Your task to perform on an android device: Set the phone to "Do not disturb". Image 0: 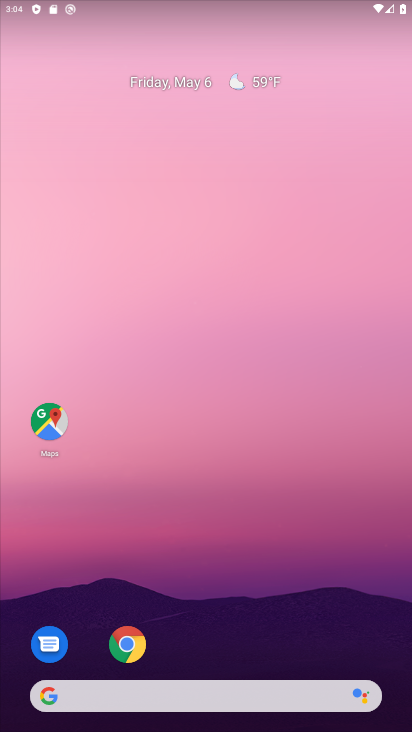
Step 0: drag from (212, 727) to (190, 180)
Your task to perform on an android device: Set the phone to "Do not disturb". Image 1: 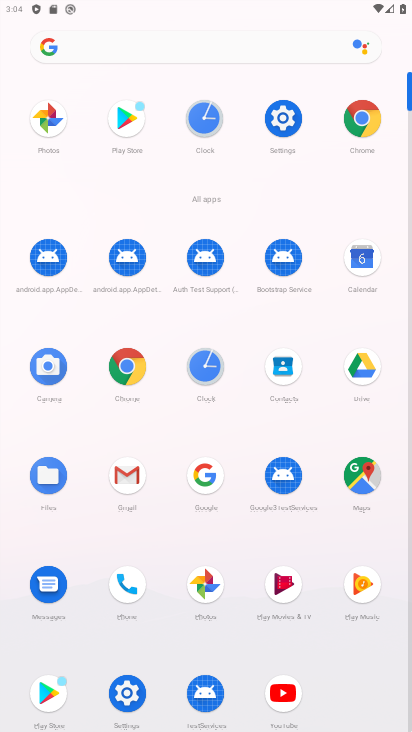
Step 1: click (127, 687)
Your task to perform on an android device: Set the phone to "Do not disturb". Image 2: 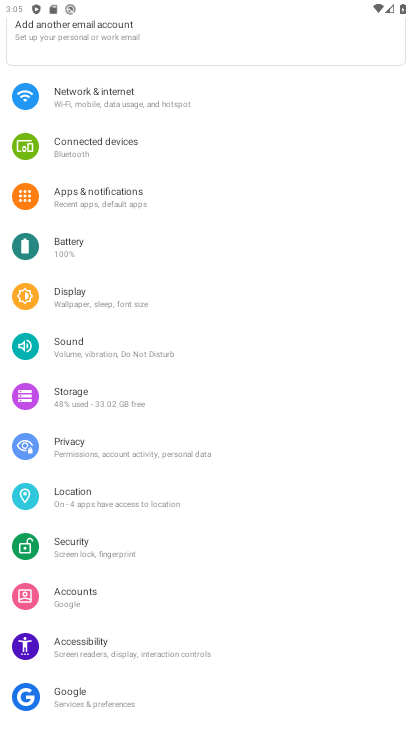
Step 2: click (124, 352)
Your task to perform on an android device: Set the phone to "Do not disturb". Image 3: 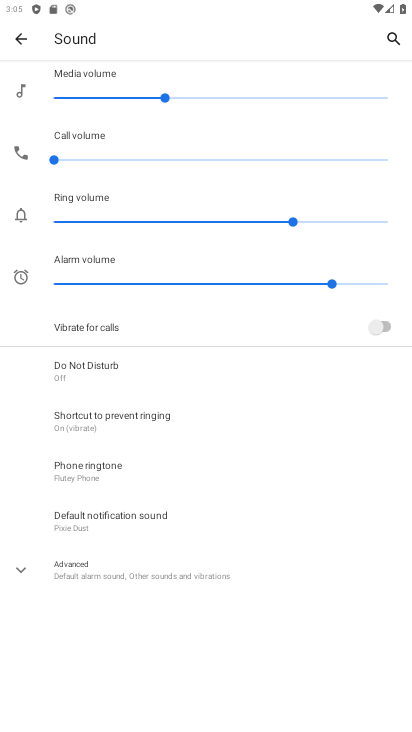
Step 3: click (81, 364)
Your task to perform on an android device: Set the phone to "Do not disturb". Image 4: 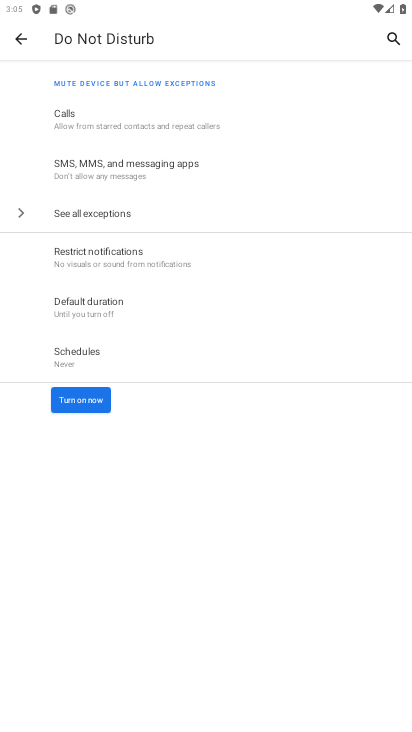
Step 4: click (86, 399)
Your task to perform on an android device: Set the phone to "Do not disturb". Image 5: 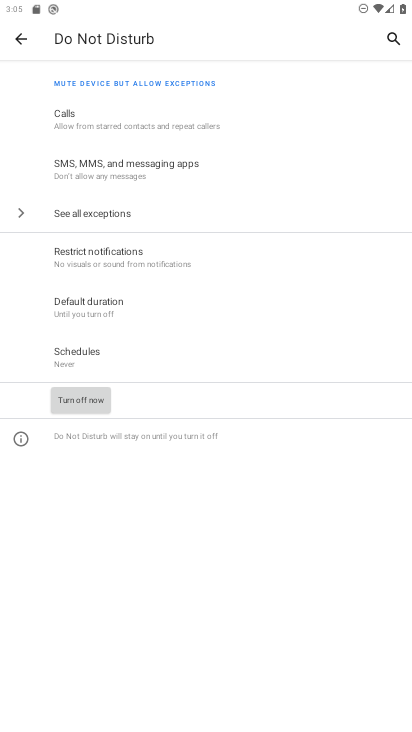
Step 5: task complete